Your task to perform on an android device: change timer sound Image 0: 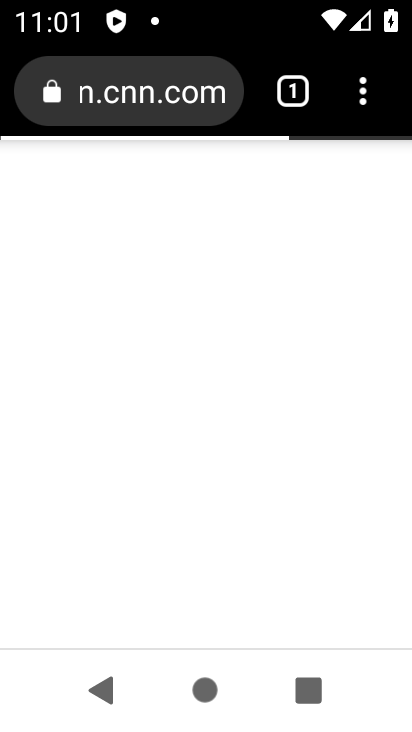
Step 0: press home button
Your task to perform on an android device: change timer sound Image 1: 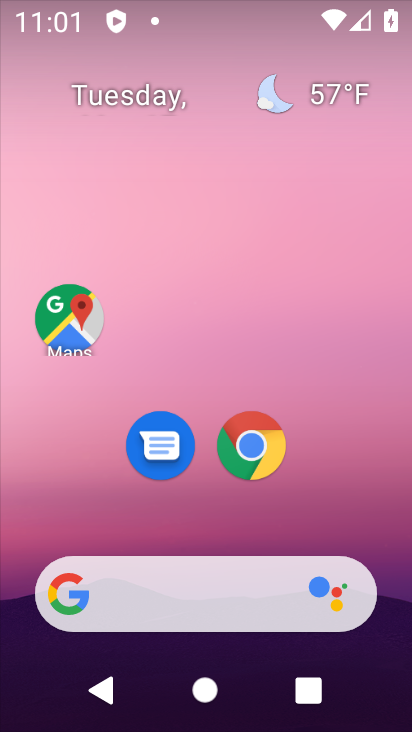
Step 1: drag from (376, 514) to (362, 85)
Your task to perform on an android device: change timer sound Image 2: 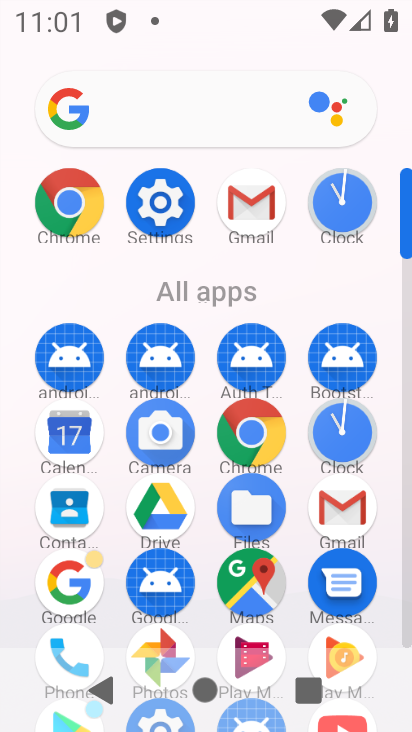
Step 2: click (350, 216)
Your task to perform on an android device: change timer sound Image 3: 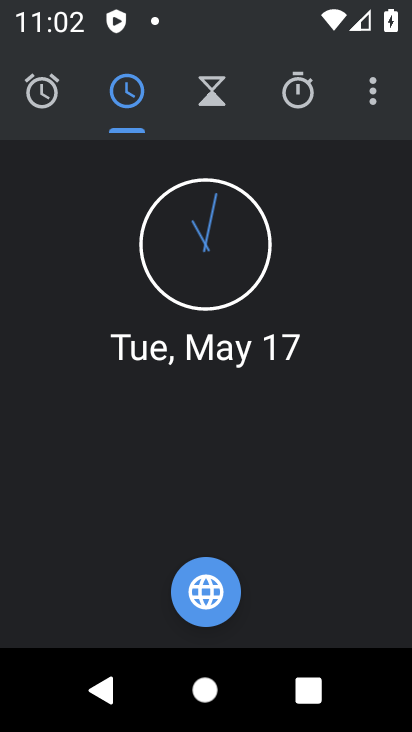
Step 3: click (376, 101)
Your task to perform on an android device: change timer sound Image 4: 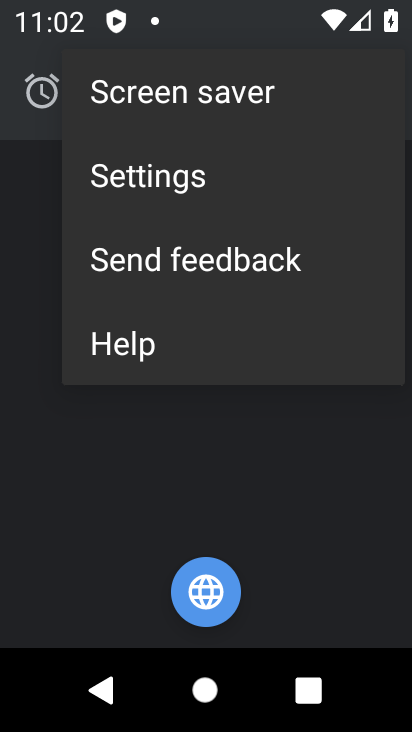
Step 4: click (197, 179)
Your task to perform on an android device: change timer sound Image 5: 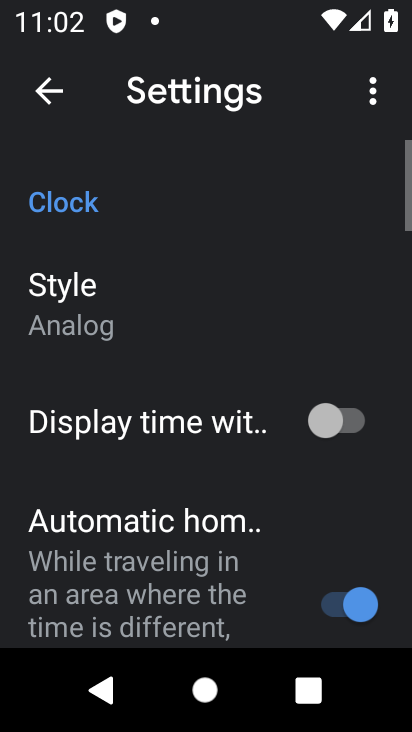
Step 5: drag from (280, 579) to (270, 419)
Your task to perform on an android device: change timer sound Image 6: 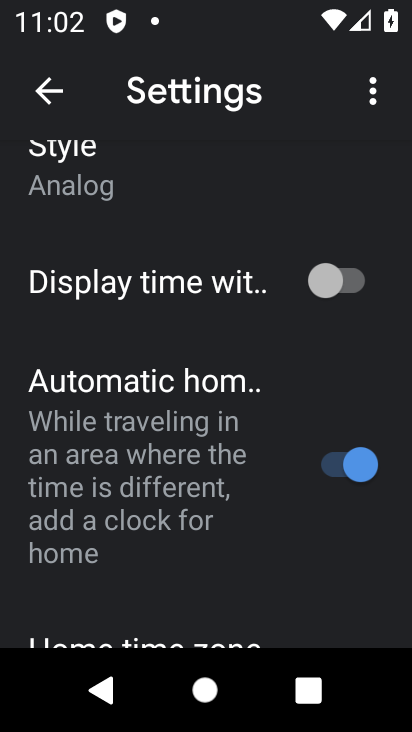
Step 6: drag from (262, 566) to (279, 422)
Your task to perform on an android device: change timer sound Image 7: 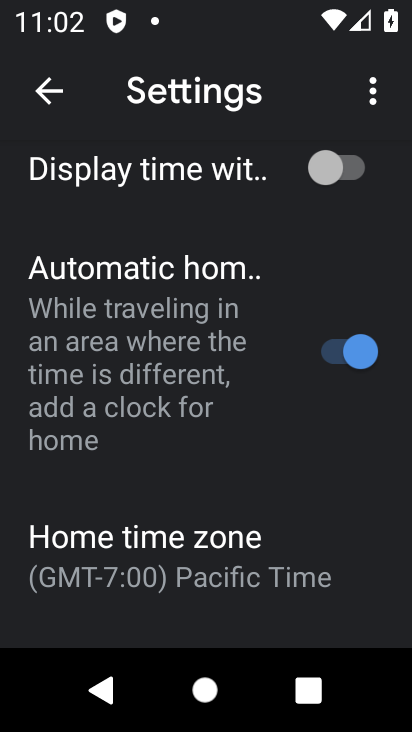
Step 7: drag from (257, 617) to (276, 426)
Your task to perform on an android device: change timer sound Image 8: 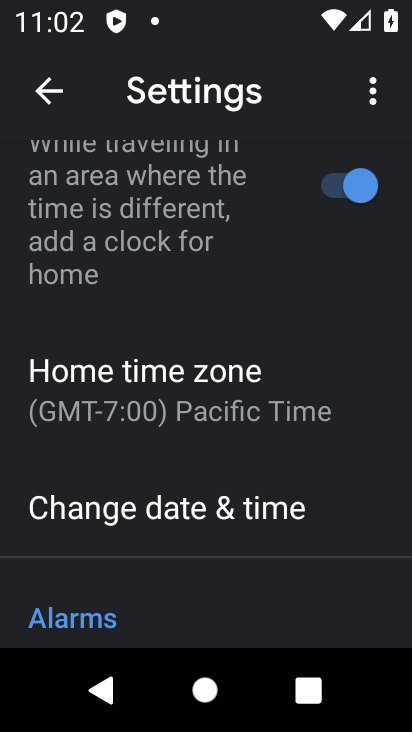
Step 8: drag from (244, 584) to (244, 410)
Your task to perform on an android device: change timer sound Image 9: 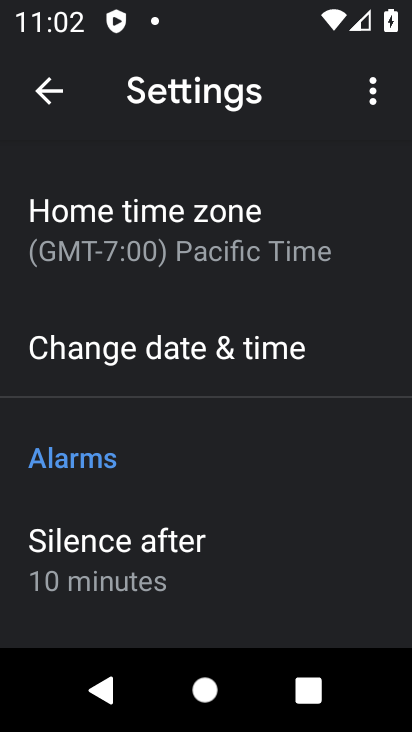
Step 9: drag from (261, 555) to (261, 388)
Your task to perform on an android device: change timer sound Image 10: 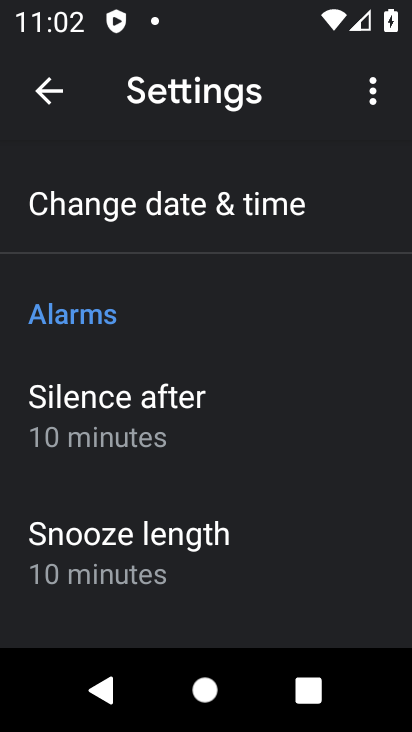
Step 10: drag from (267, 571) to (270, 422)
Your task to perform on an android device: change timer sound Image 11: 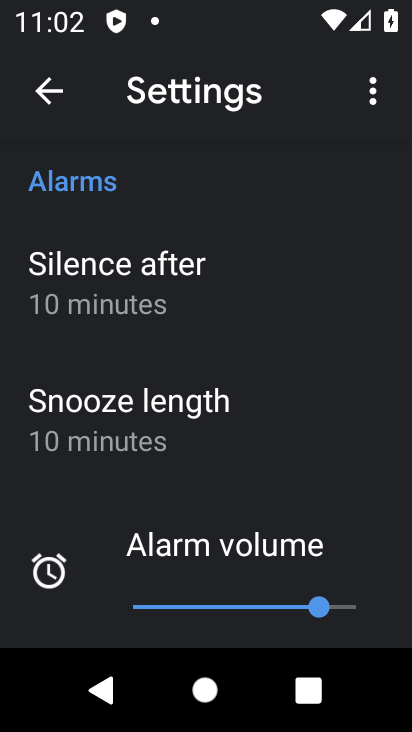
Step 11: drag from (263, 568) to (273, 427)
Your task to perform on an android device: change timer sound Image 12: 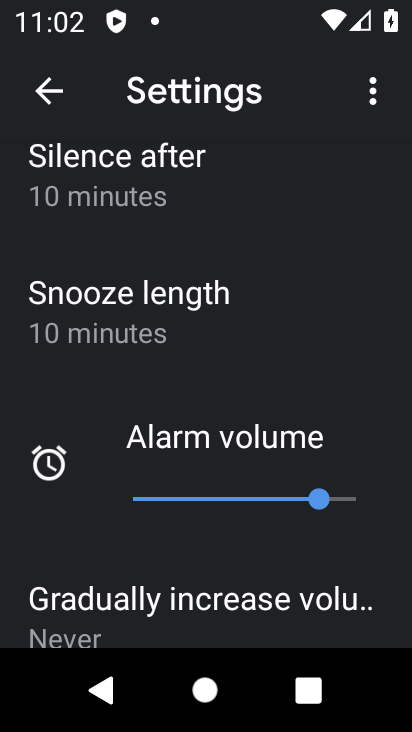
Step 12: drag from (263, 558) to (259, 385)
Your task to perform on an android device: change timer sound Image 13: 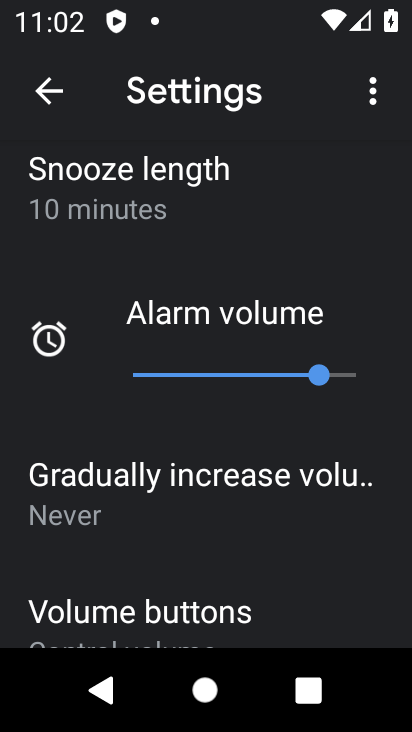
Step 13: drag from (264, 564) to (263, 374)
Your task to perform on an android device: change timer sound Image 14: 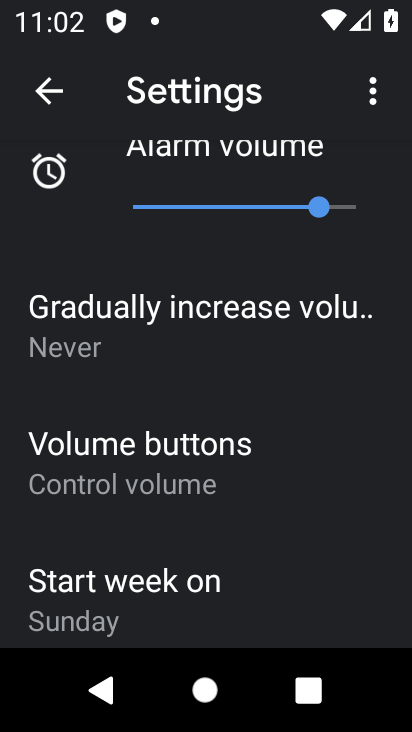
Step 14: drag from (254, 593) to (262, 467)
Your task to perform on an android device: change timer sound Image 15: 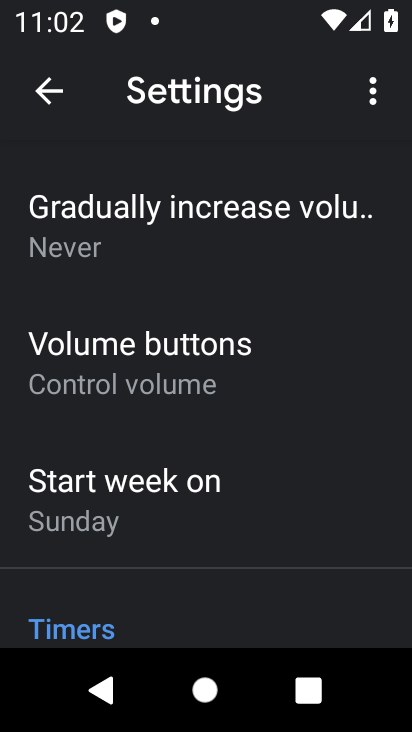
Step 15: drag from (289, 568) to (304, 387)
Your task to perform on an android device: change timer sound Image 16: 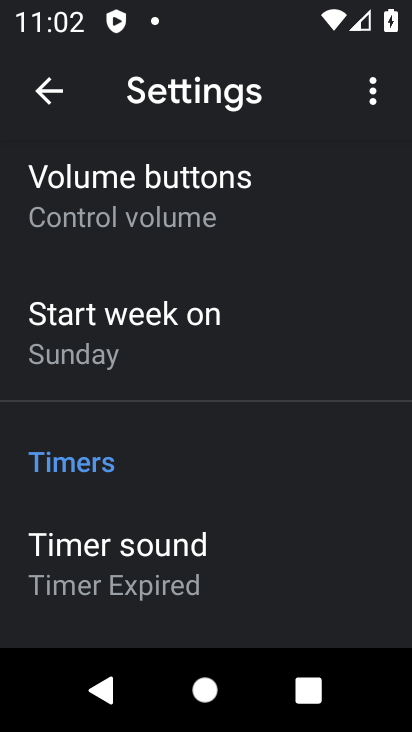
Step 16: click (167, 562)
Your task to perform on an android device: change timer sound Image 17: 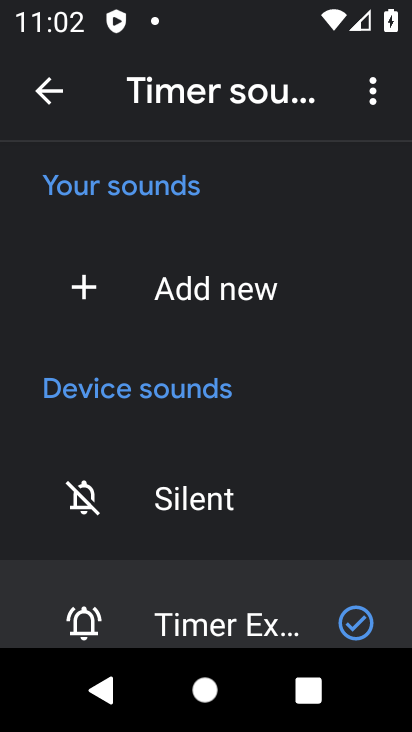
Step 17: drag from (293, 517) to (302, 364)
Your task to perform on an android device: change timer sound Image 18: 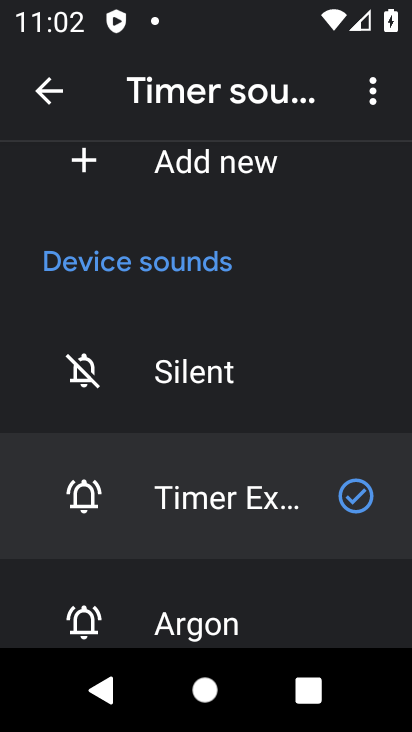
Step 18: click (206, 625)
Your task to perform on an android device: change timer sound Image 19: 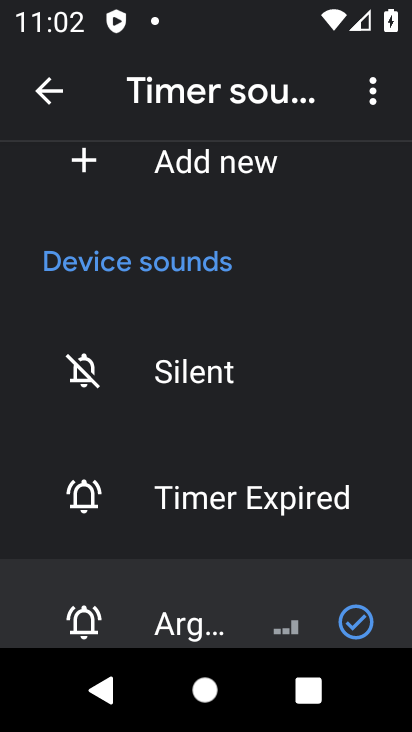
Step 19: task complete